Your task to perform on an android device: toggle javascript in the chrome app Image 0: 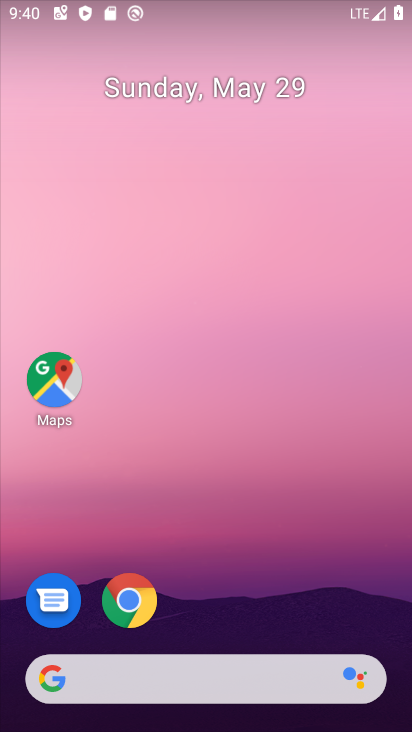
Step 0: click (129, 597)
Your task to perform on an android device: toggle javascript in the chrome app Image 1: 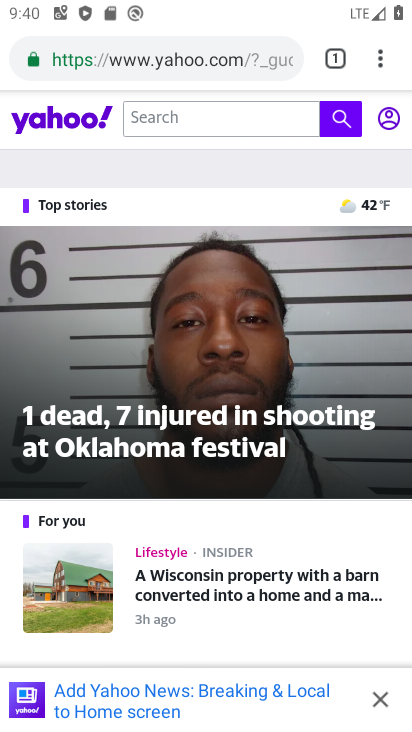
Step 1: drag from (381, 67) to (204, 628)
Your task to perform on an android device: toggle javascript in the chrome app Image 2: 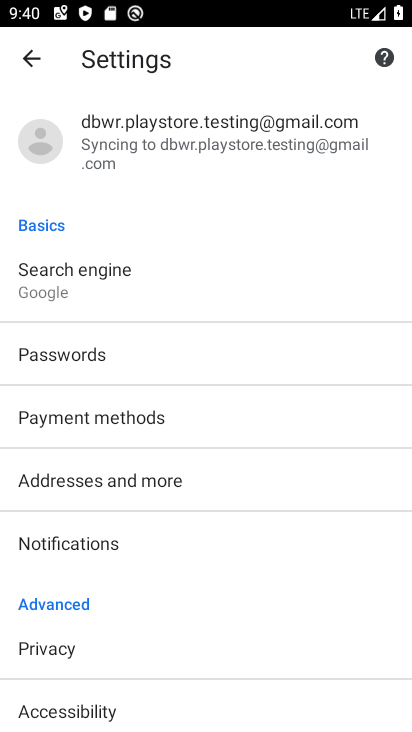
Step 2: drag from (206, 638) to (207, 351)
Your task to perform on an android device: toggle javascript in the chrome app Image 3: 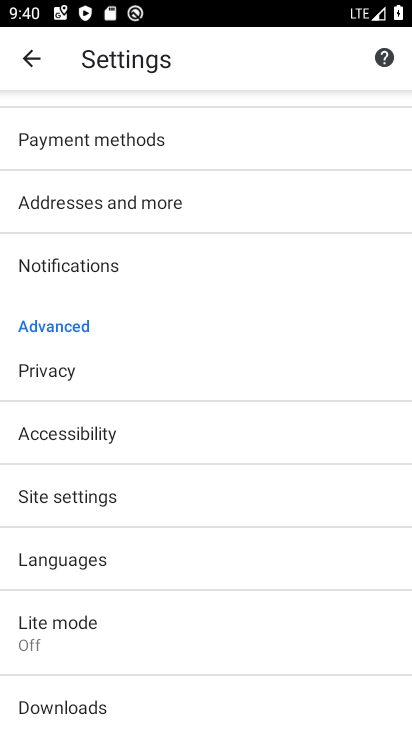
Step 3: click (95, 496)
Your task to perform on an android device: toggle javascript in the chrome app Image 4: 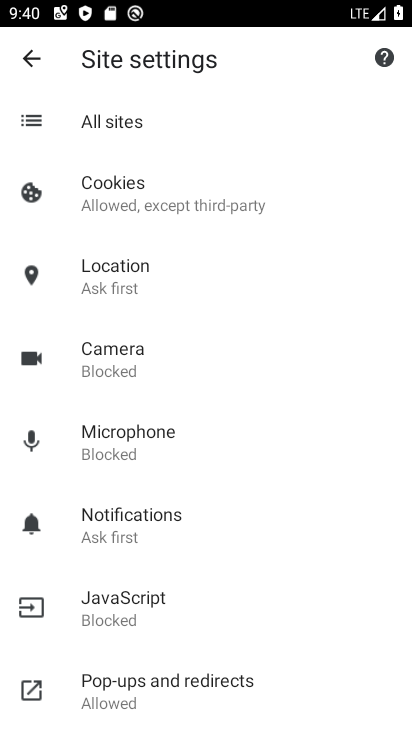
Step 4: click (140, 593)
Your task to perform on an android device: toggle javascript in the chrome app Image 5: 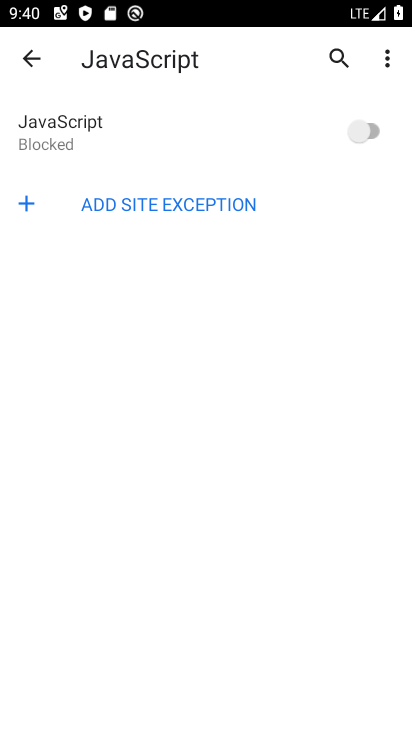
Step 5: click (369, 124)
Your task to perform on an android device: toggle javascript in the chrome app Image 6: 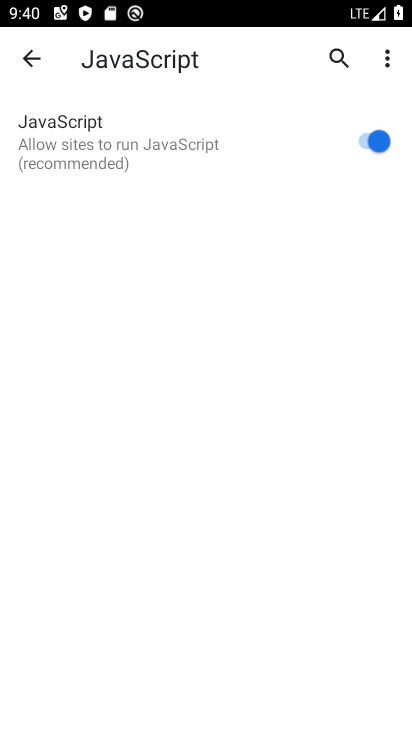
Step 6: task complete